Your task to perform on an android device: Open eBay Image 0: 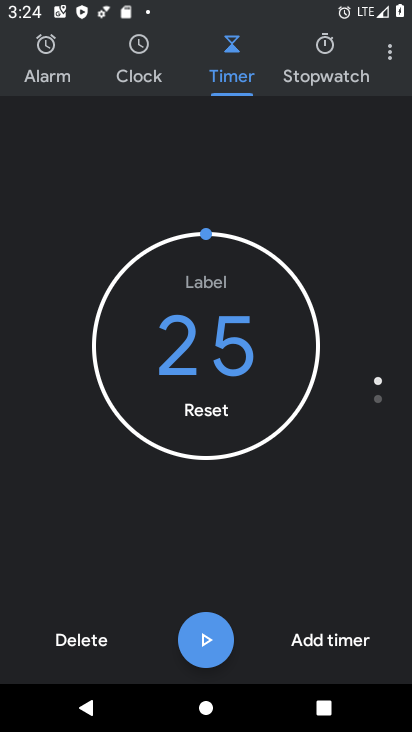
Step 0: press home button
Your task to perform on an android device: Open eBay Image 1: 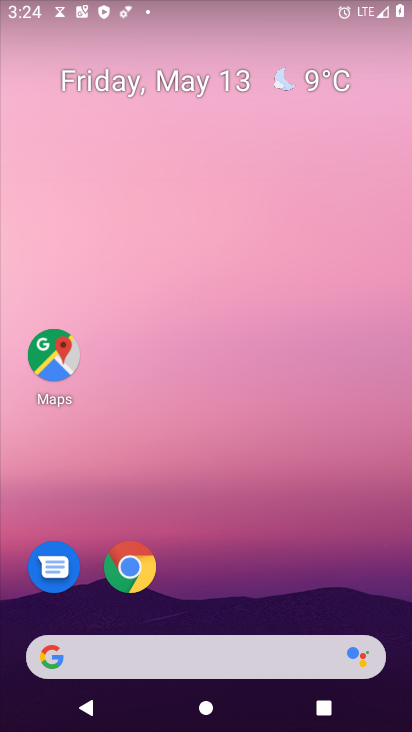
Step 1: click (132, 570)
Your task to perform on an android device: Open eBay Image 2: 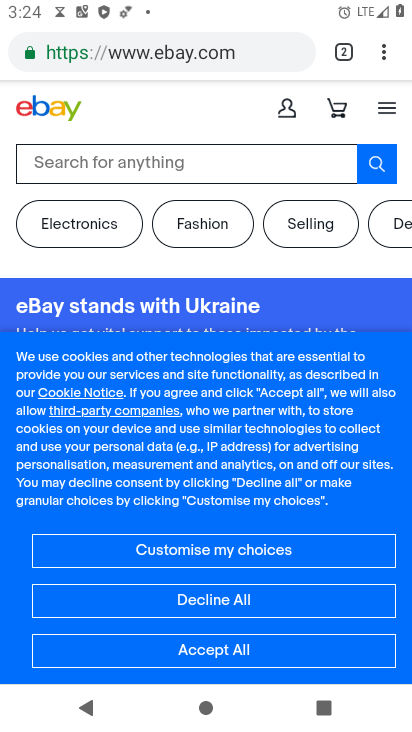
Step 2: task complete